Your task to perform on an android device: Open calendar and show me the third week of next month Image 0: 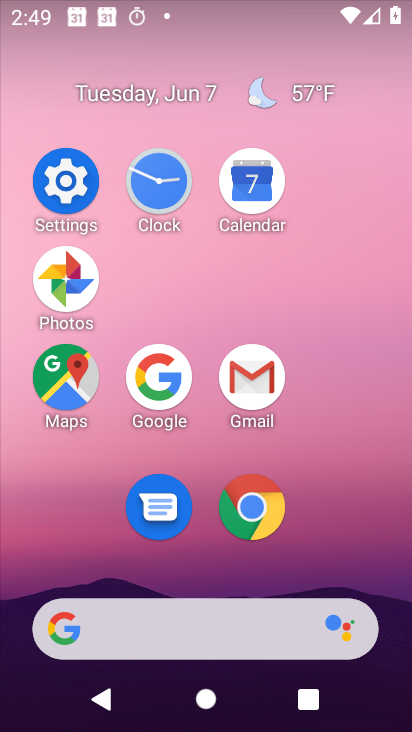
Step 0: click (286, 179)
Your task to perform on an android device: Open calendar and show me the third week of next month Image 1: 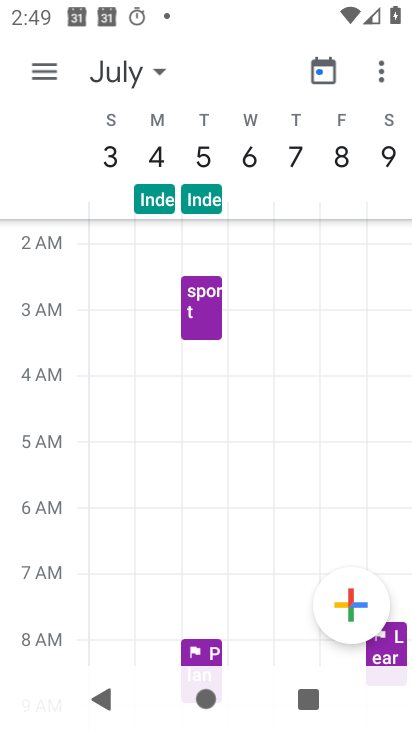
Step 1: click (56, 75)
Your task to perform on an android device: Open calendar and show me the third week of next month Image 2: 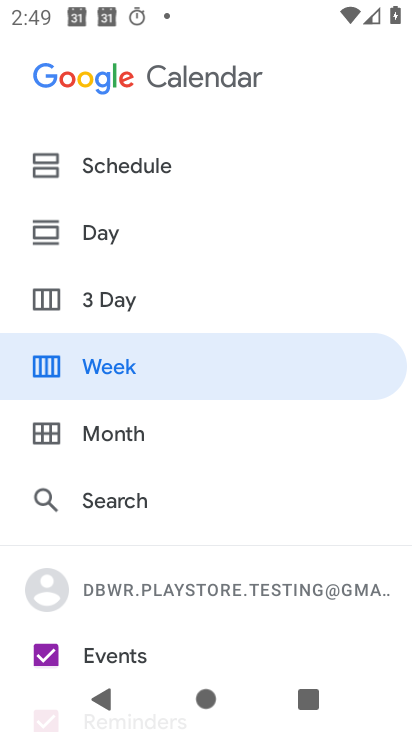
Step 2: click (172, 358)
Your task to perform on an android device: Open calendar and show me the third week of next month Image 3: 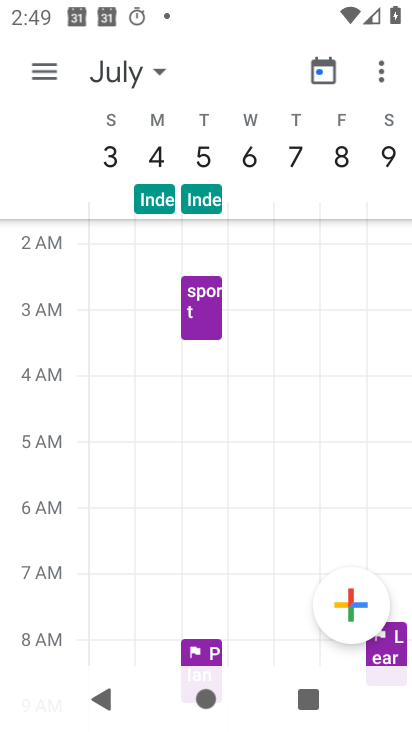
Step 3: task complete